Your task to perform on an android device: see creations saved in the google photos Image 0: 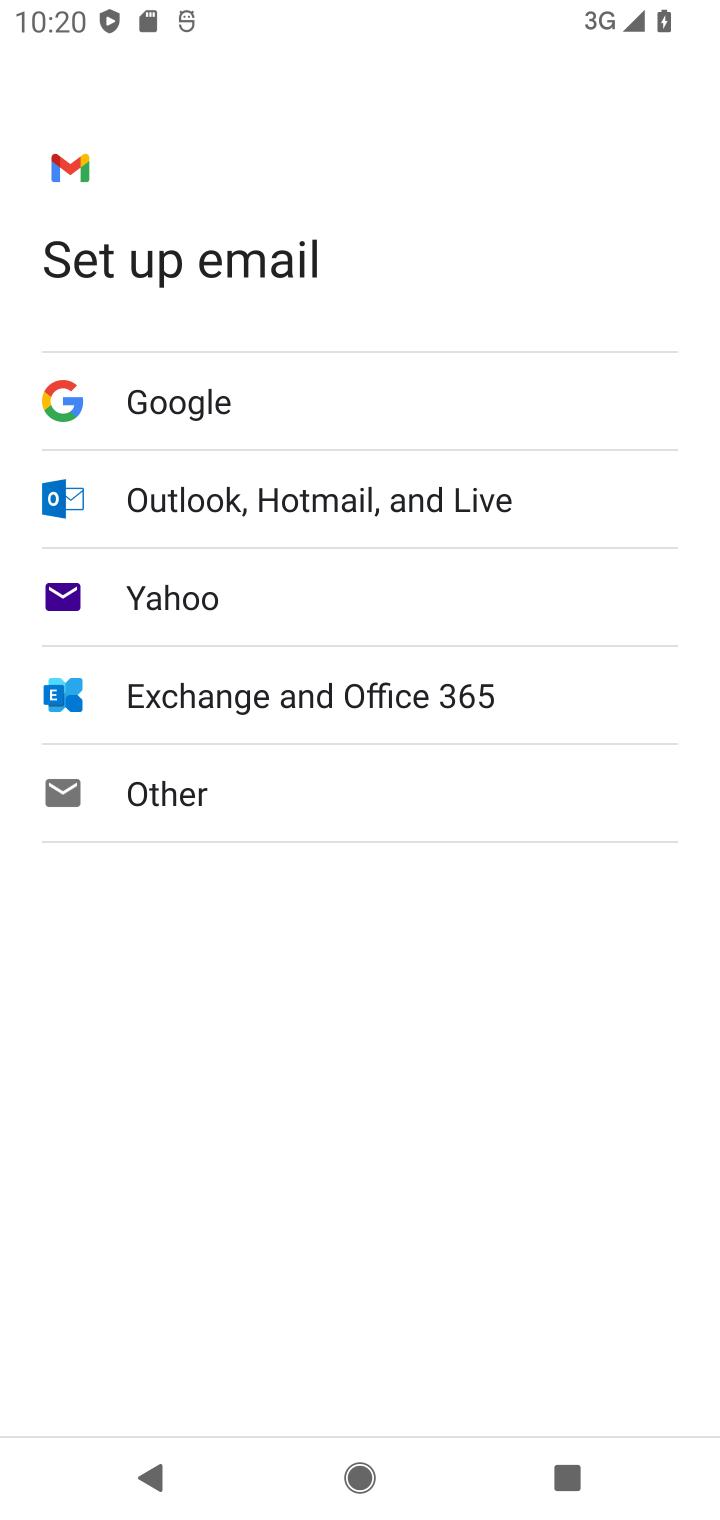
Step 0: task complete